Your task to perform on an android device: turn off translation in the chrome app Image 0: 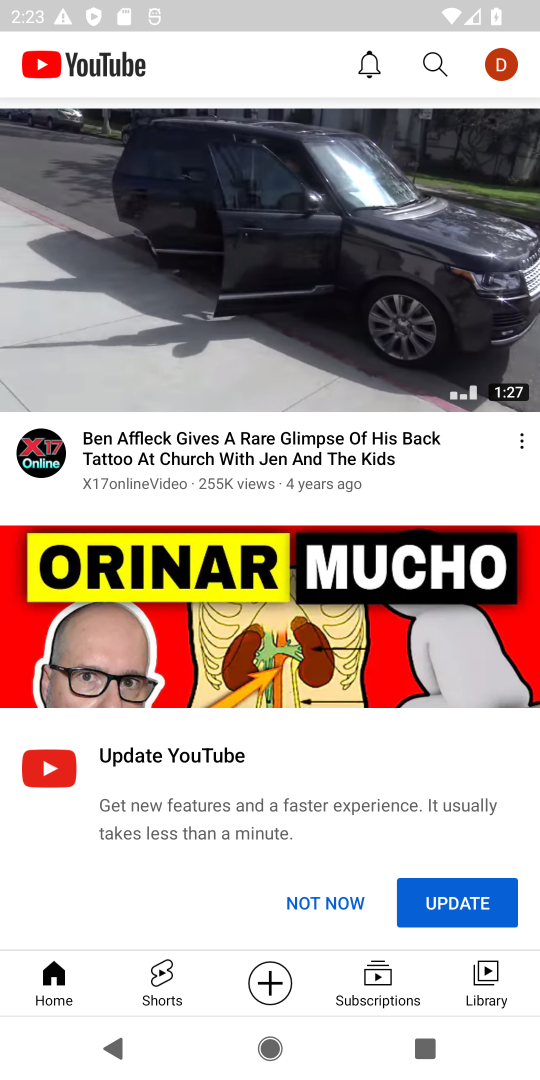
Step 0: press home button
Your task to perform on an android device: turn off translation in the chrome app Image 1: 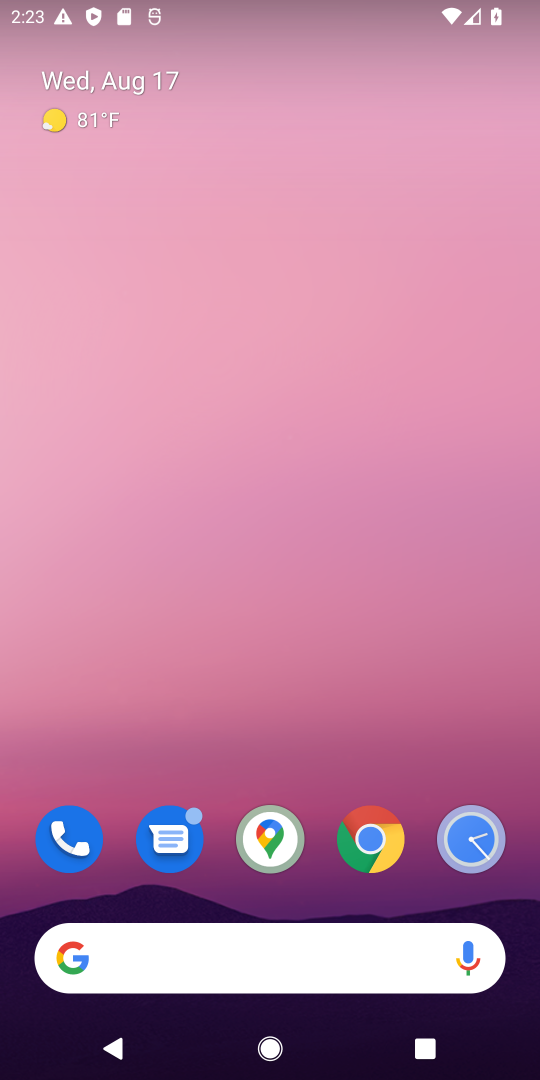
Step 1: click (362, 854)
Your task to perform on an android device: turn off translation in the chrome app Image 2: 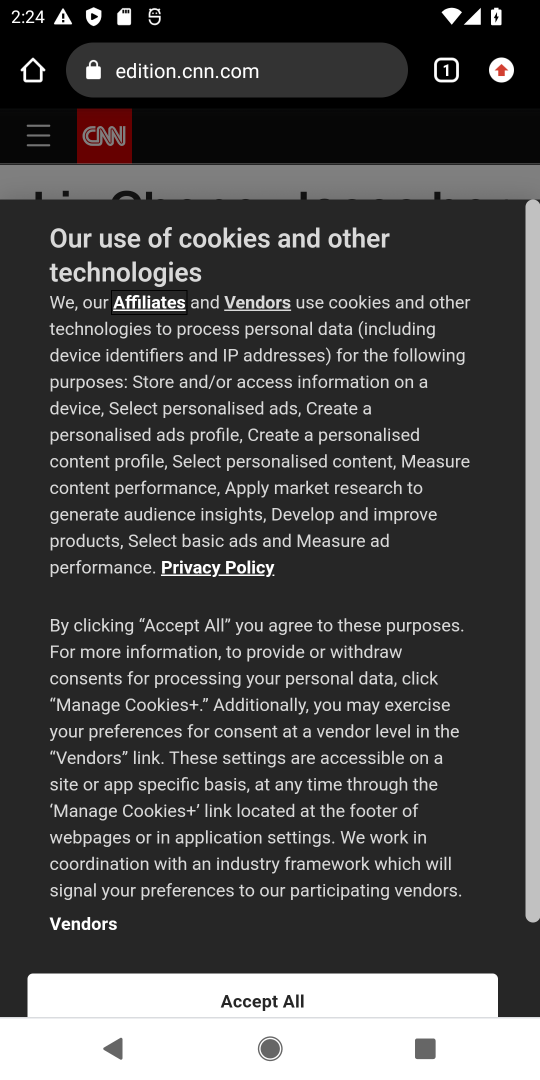
Step 2: click (502, 77)
Your task to perform on an android device: turn off translation in the chrome app Image 3: 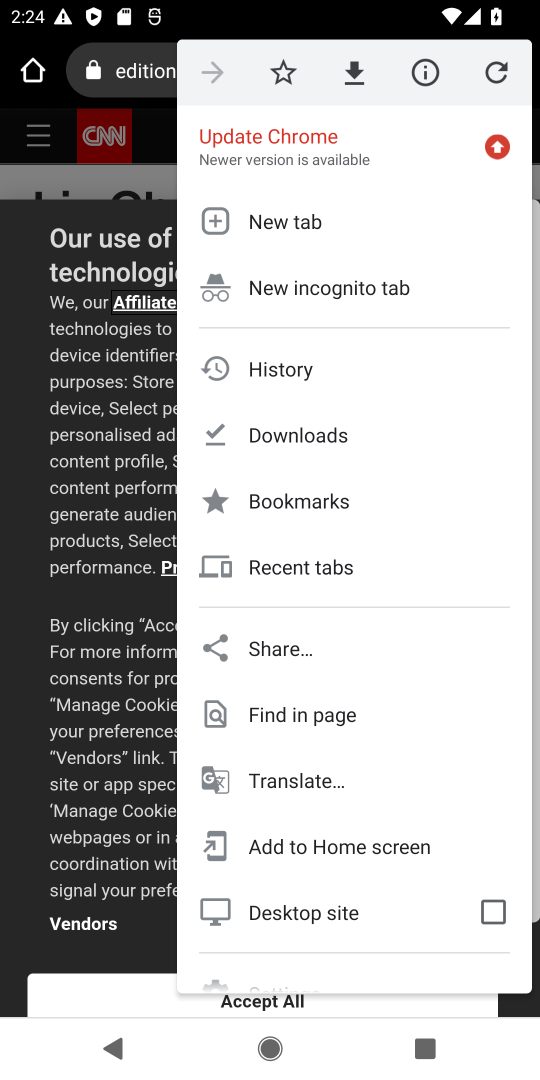
Step 3: drag from (285, 863) to (286, 774)
Your task to perform on an android device: turn off translation in the chrome app Image 4: 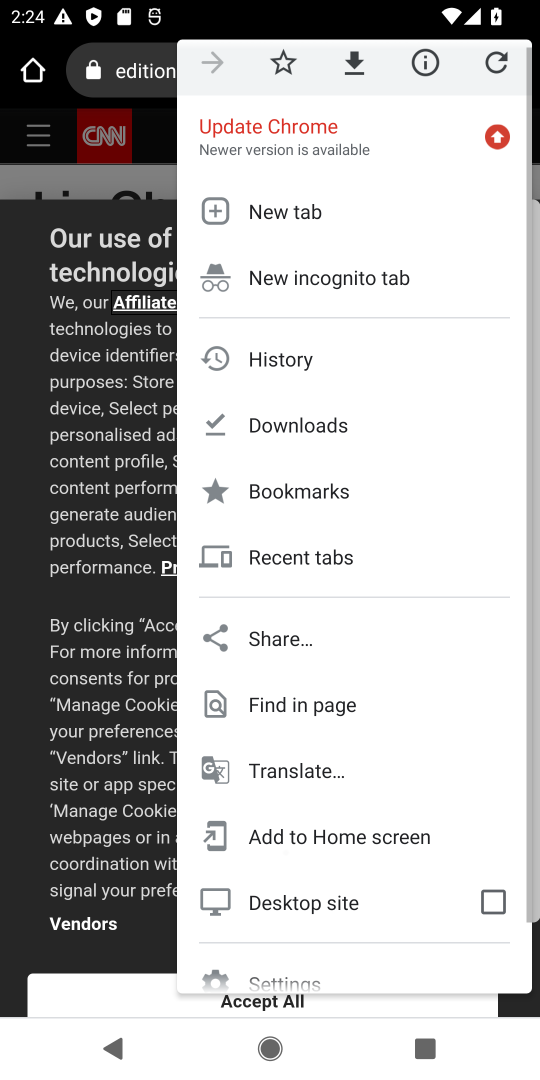
Step 4: drag from (286, 636) to (287, 521)
Your task to perform on an android device: turn off translation in the chrome app Image 5: 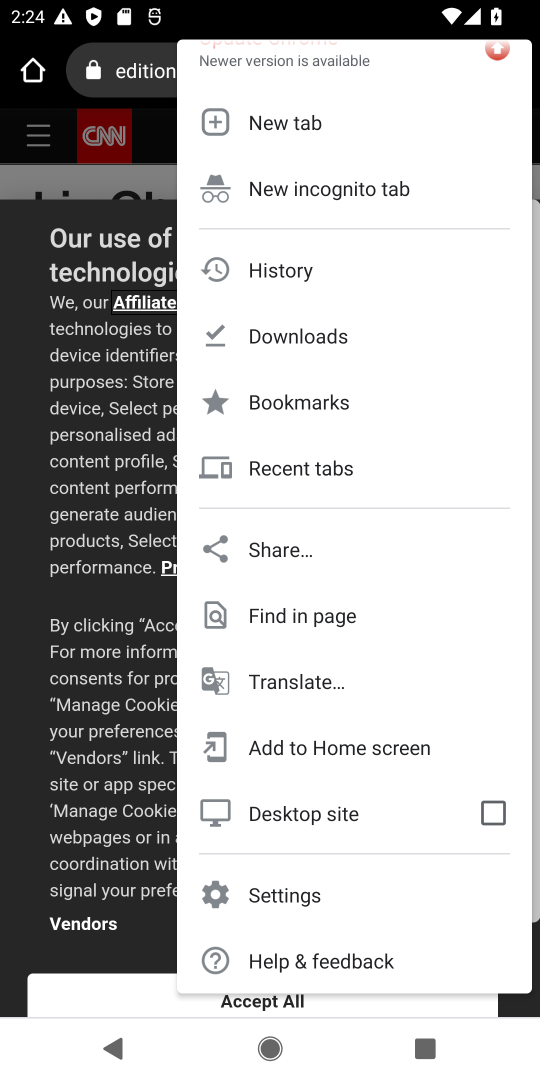
Step 5: click (282, 893)
Your task to perform on an android device: turn off translation in the chrome app Image 6: 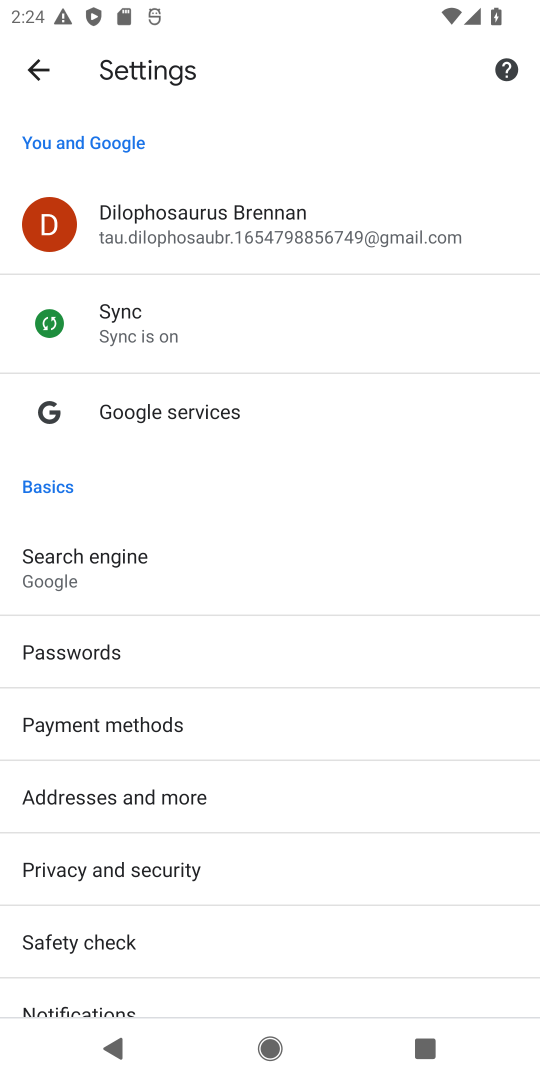
Step 6: drag from (145, 933) to (145, 439)
Your task to perform on an android device: turn off translation in the chrome app Image 7: 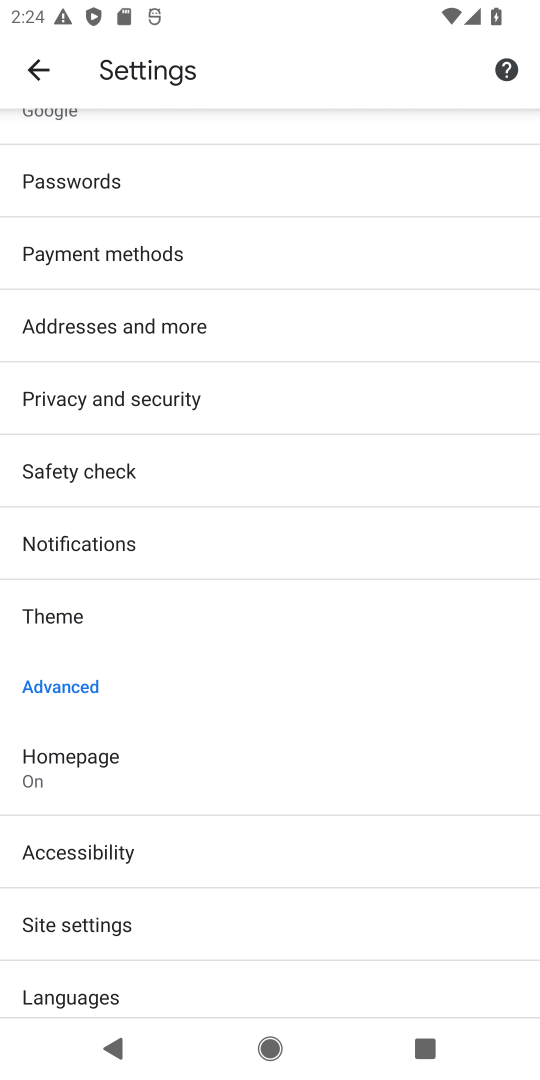
Step 7: click (117, 985)
Your task to perform on an android device: turn off translation in the chrome app Image 8: 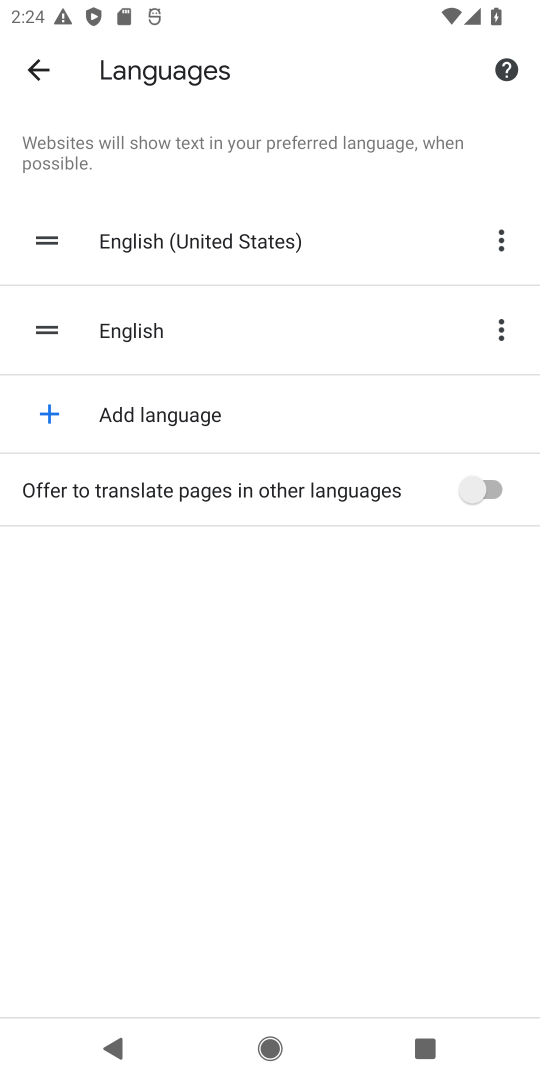
Step 8: task complete